Your task to perform on an android device: Open notification settings Image 0: 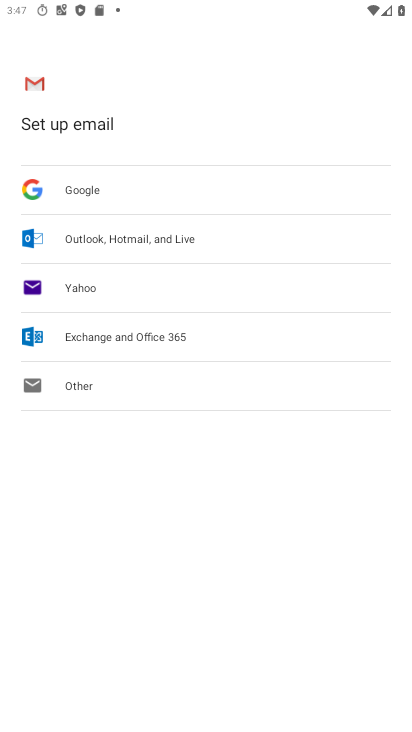
Step 0: press home button
Your task to perform on an android device: Open notification settings Image 1: 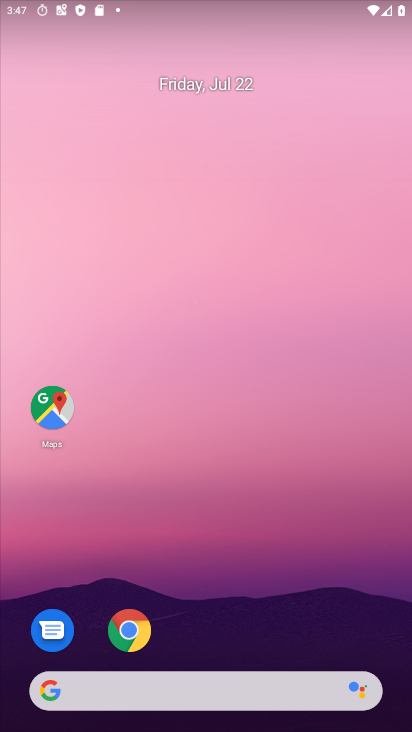
Step 1: drag from (393, 691) to (347, 192)
Your task to perform on an android device: Open notification settings Image 2: 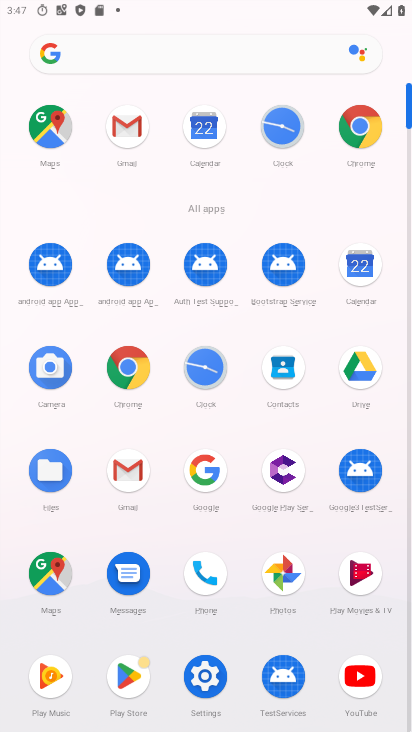
Step 2: click (202, 660)
Your task to perform on an android device: Open notification settings Image 3: 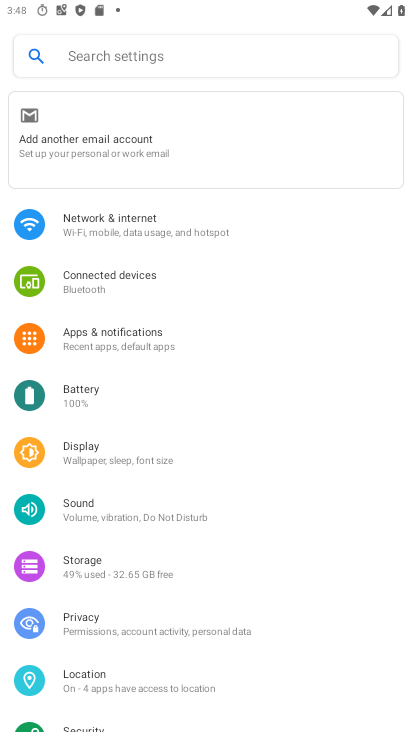
Step 3: click (109, 344)
Your task to perform on an android device: Open notification settings Image 4: 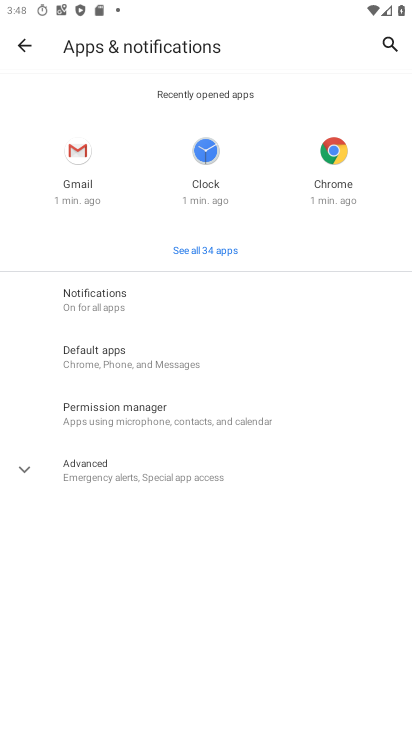
Step 4: click (90, 298)
Your task to perform on an android device: Open notification settings Image 5: 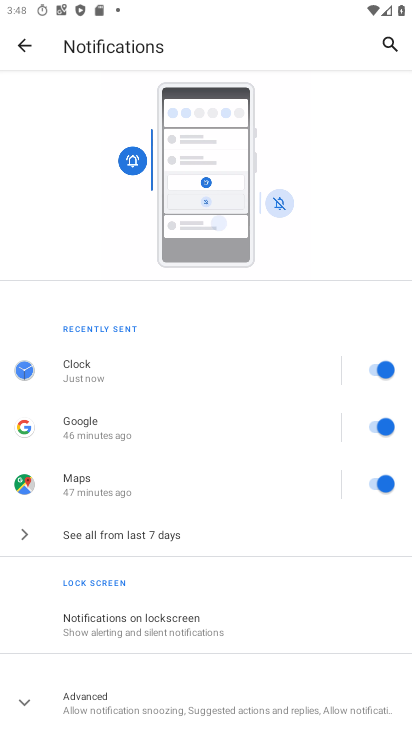
Step 5: task complete